Your task to perform on an android device: Open display settings Image 0: 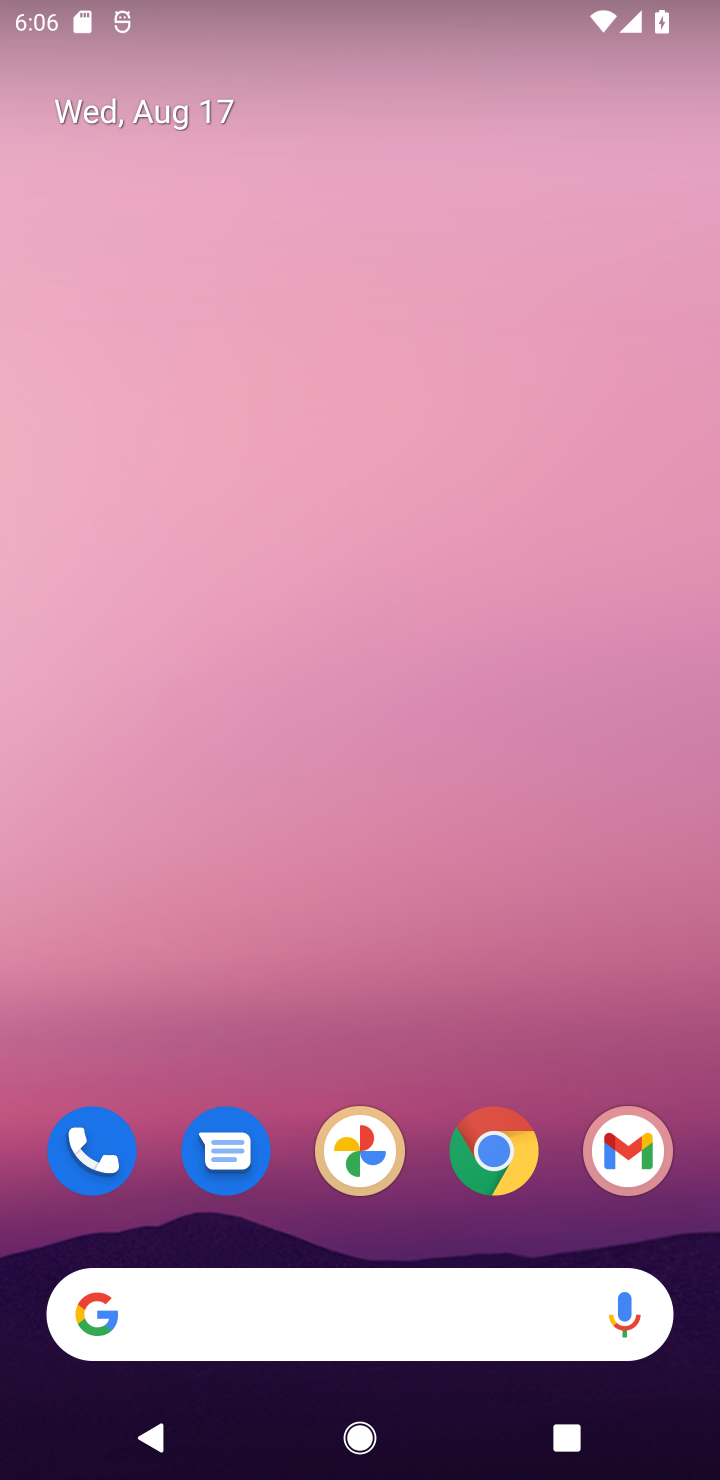
Step 0: drag from (399, 1254) to (372, 176)
Your task to perform on an android device: Open display settings Image 1: 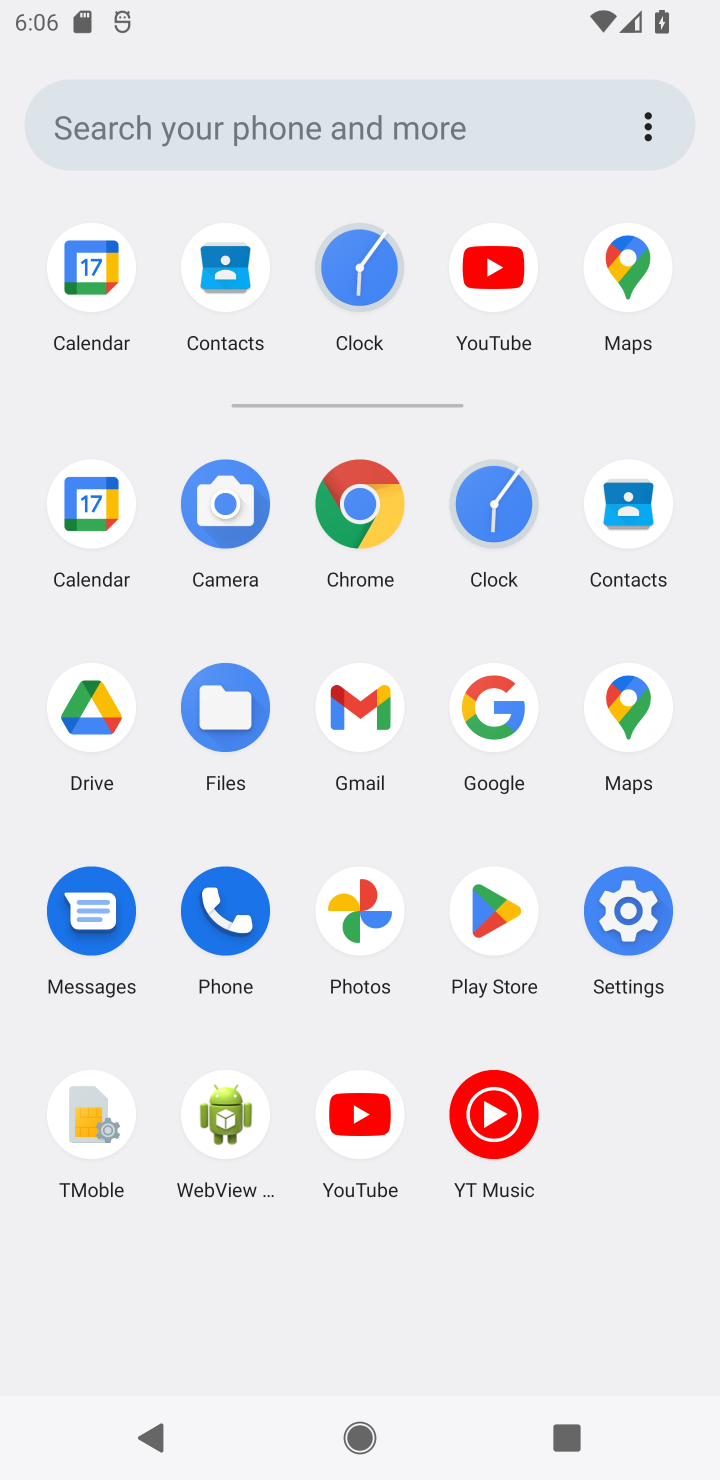
Step 1: click (625, 909)
Your task to perform on an android device: Open display settings Image 2: 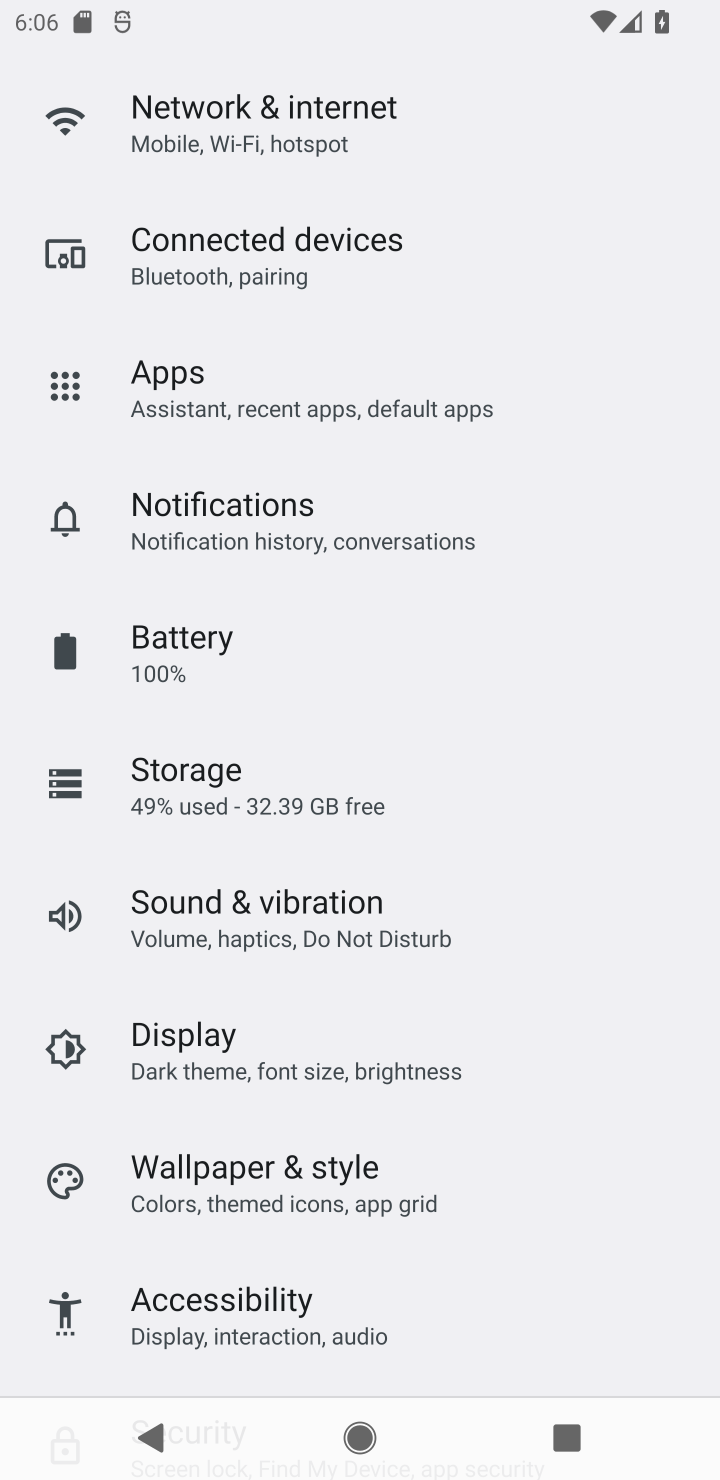
Step 2: click (262, 1061)
Your task to perform on an android device: Open display settings Image 3: 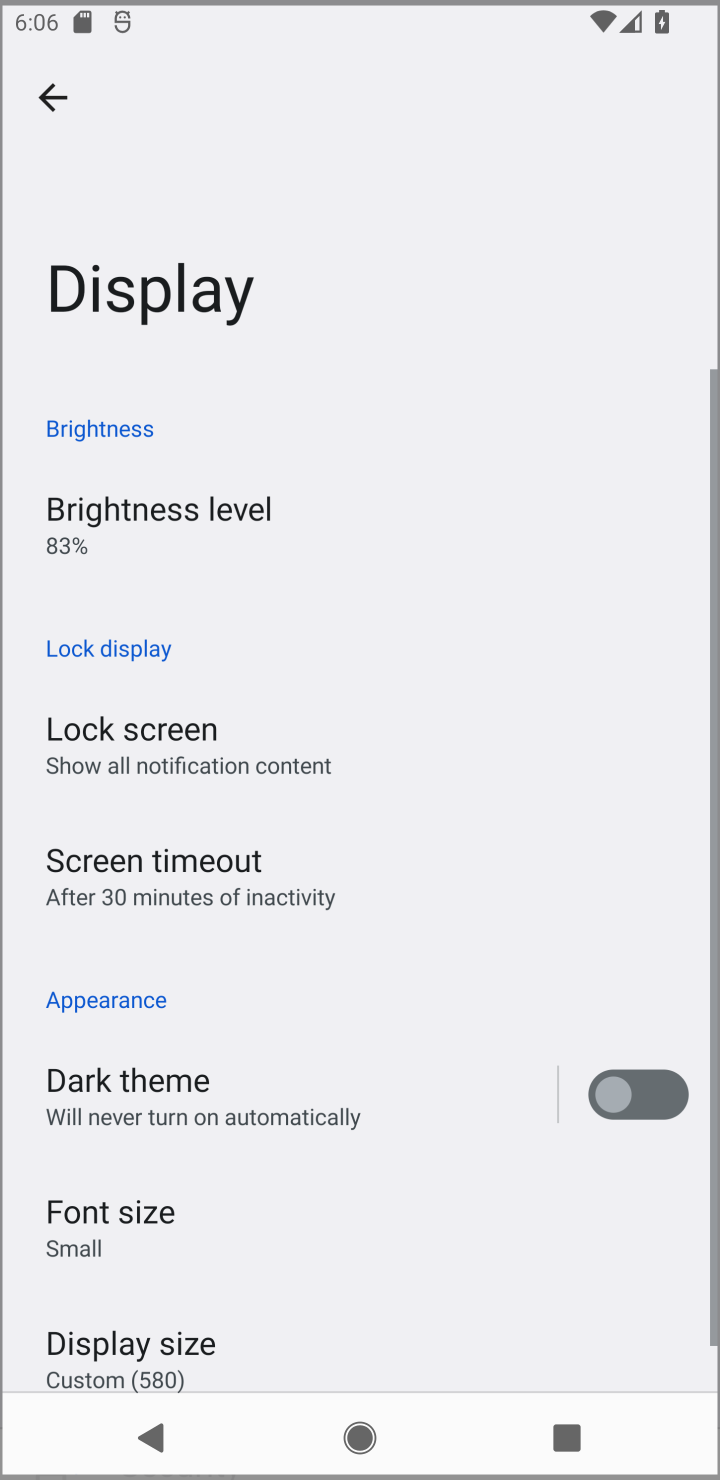
Step 3: task complete